Your task to perform on an android device: turn off airplane mode Image 0: 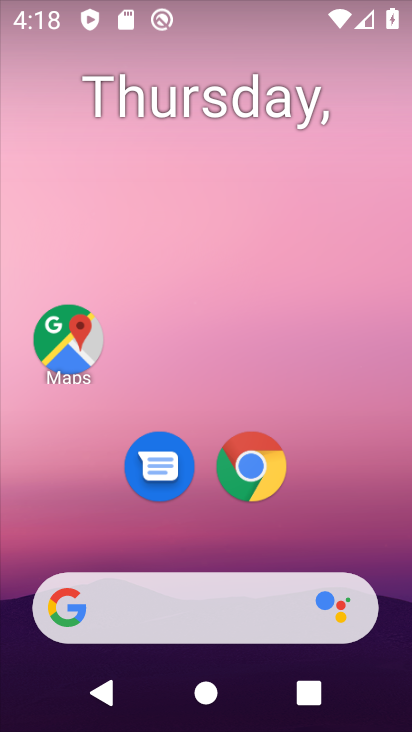
Step 0: press home button
Your task to perform on an android device: turn off airplane mode Image 1: 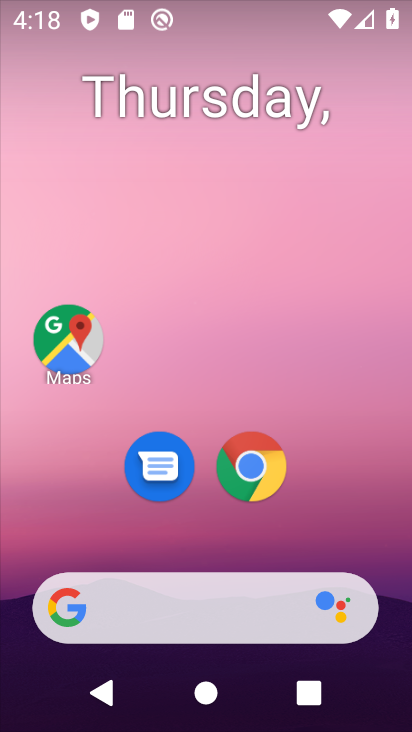
Step 1: task complete